Your task to perform on an android device: check data usage Image 0: 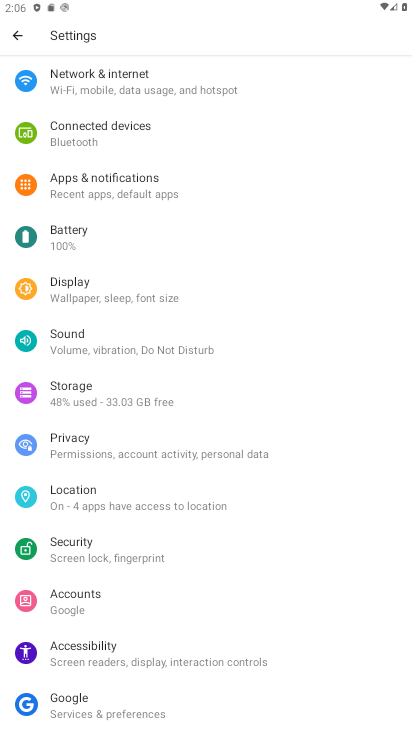
Step 0: click (110, 82)
Your task to perform on an android device: check data usage Image 1: 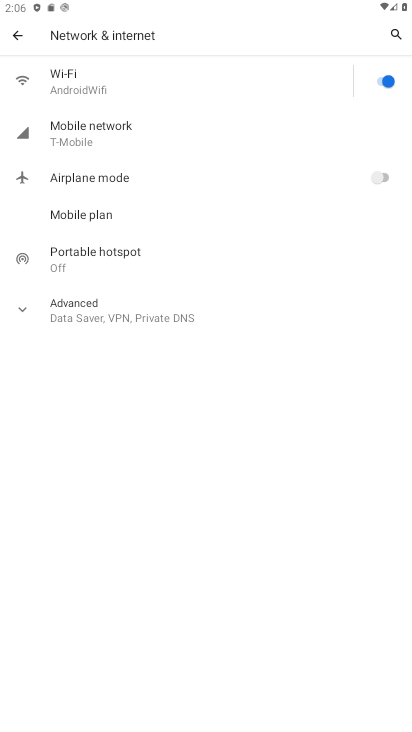
Step 1: click (74, 133)
Your task to perform on an android device: check data usage Image 2: 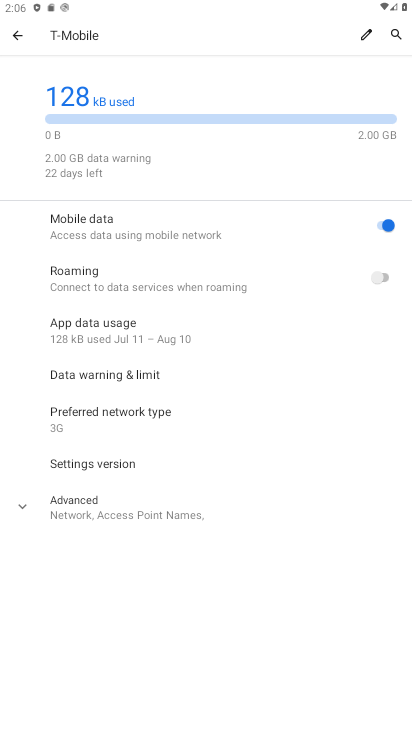
Step 2: task complete